Your task to perform on an android device: turn off location history Image 0: 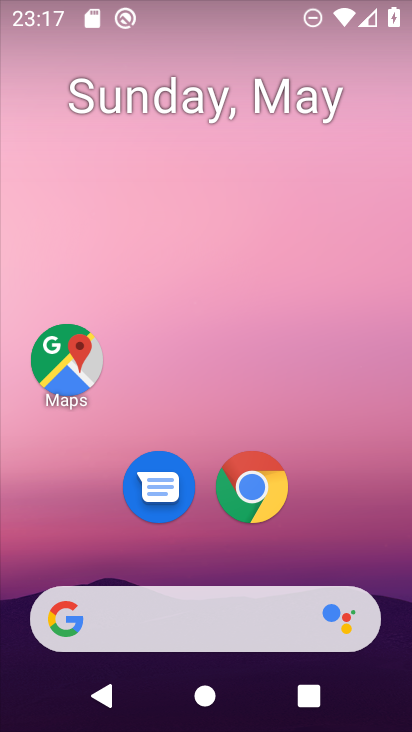
Step 0: drag from (341, 522) to (246, 149)
Your task to perform on an android device: turn off location history Image 1: 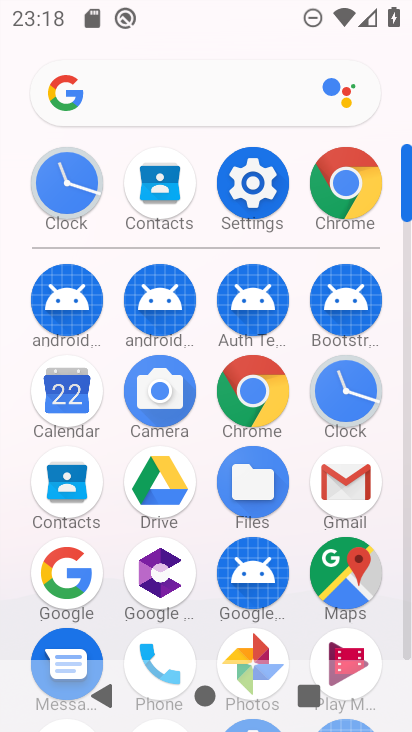
Step 1: click (342, 571)
Your task to perform on an android device: turn off location history Image 2: 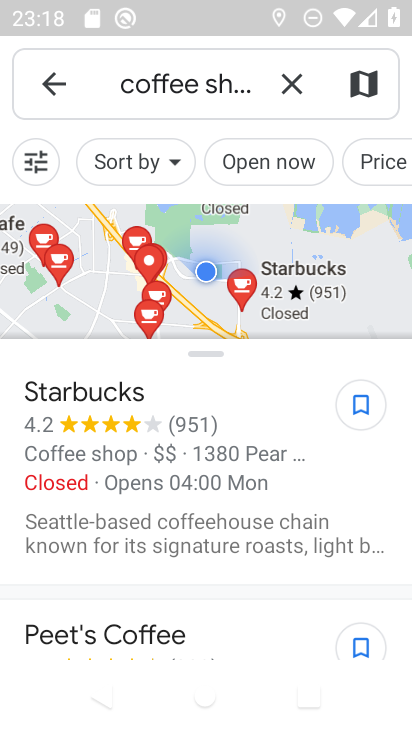
Step 2: click (61, 90)
Your task to perform on an android device: turn off location history Image 3: 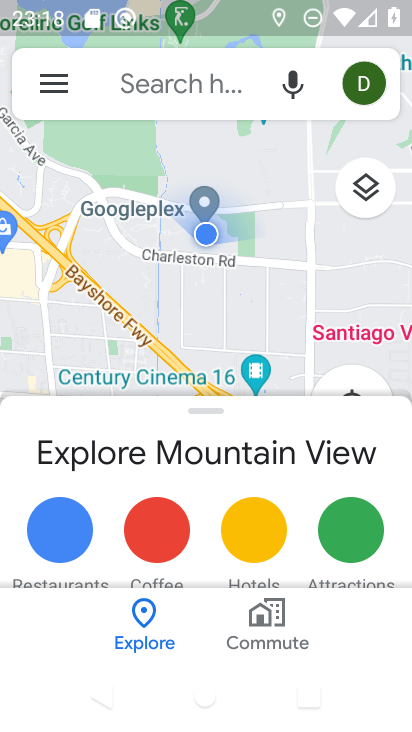
Step 3: click (61, 90)
Your task to perform on an android device: turn off location history Image 4: 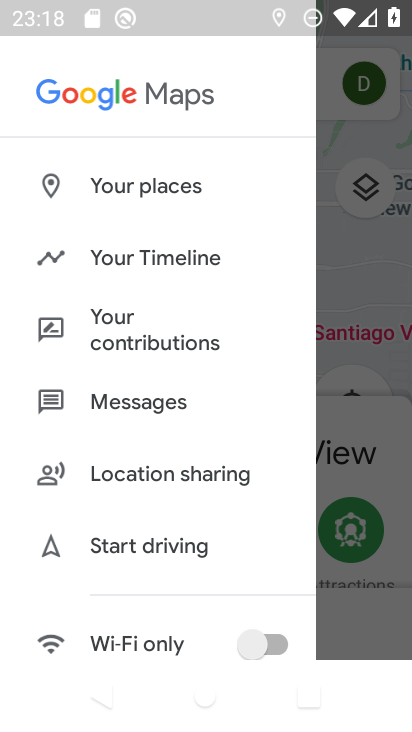
Step 4: click (146, 252)
Your task to perform on an android device: turn off location history Image 5: 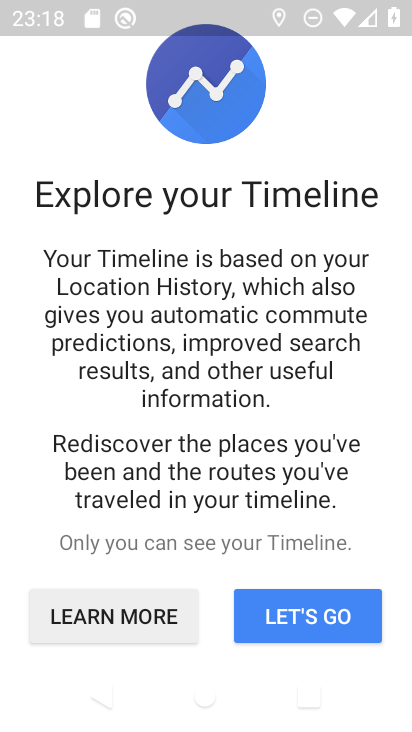
Step 5: click (335, 623)
Your task to perform on an android device: turn off location history Image 6: 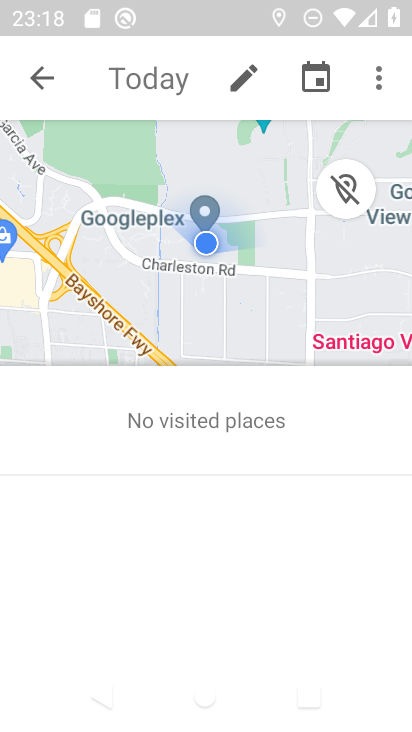
Step 6: click (380, 86)
Your task to perform on an android device: turn off location history Image 7: 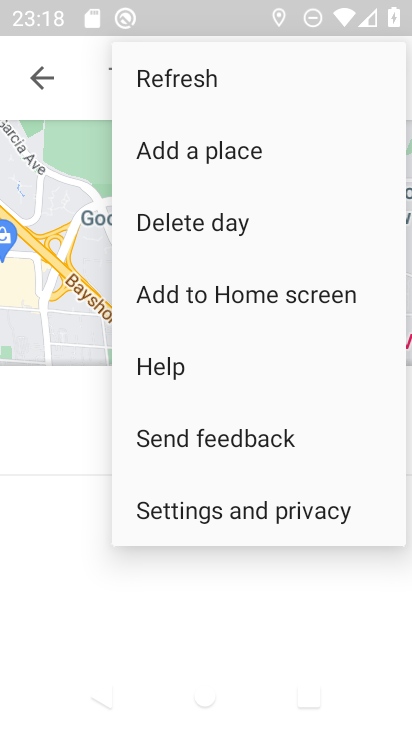
Step 7: click (310, 513)
Your task to perform on an android device: turn off location history Image 8: 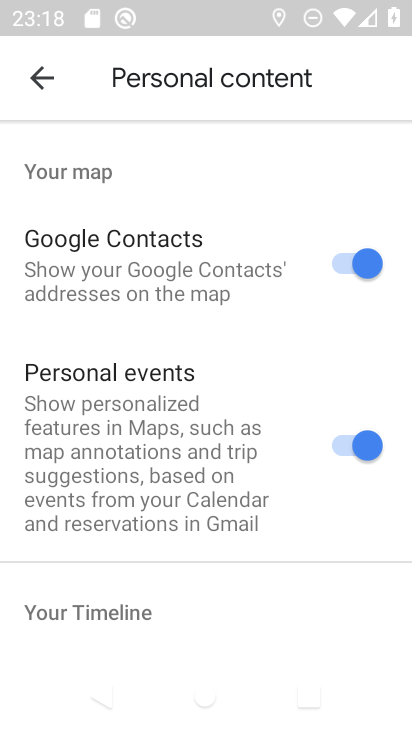
Step 8: task complete